Your task to perform on an android device: Go to wifi settings Image 0: 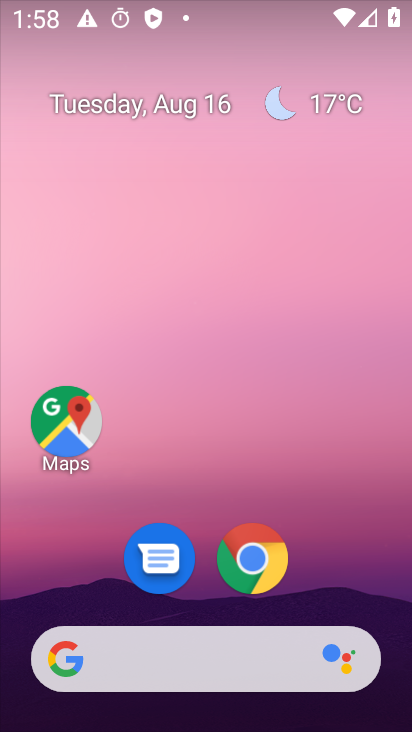
Step 0: drag from (229, 457) to (266, 1)
Your task to perform on an android device: Go to wifi settings Image 1: 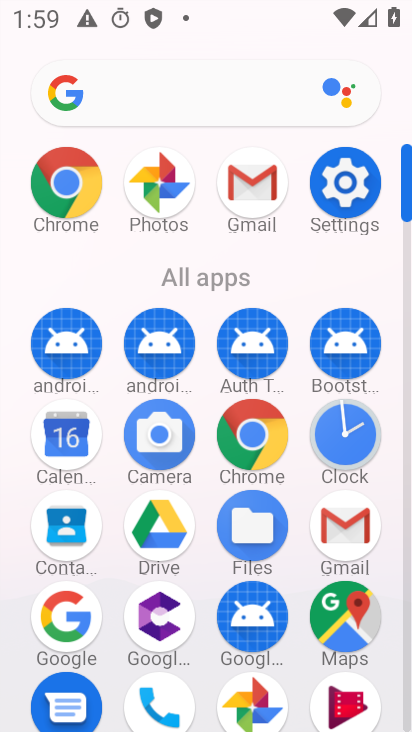
Step 1: click (345, 179)
Your task to perform on an android device: Go to wifi settings Image 2: 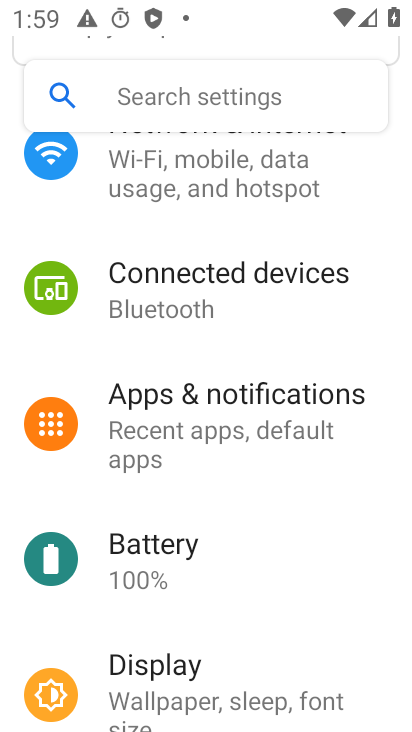
Step 2: drag from (136, 183) to (163, 476)
Your task to perform on an android device: Go to wifi settings Image 3: 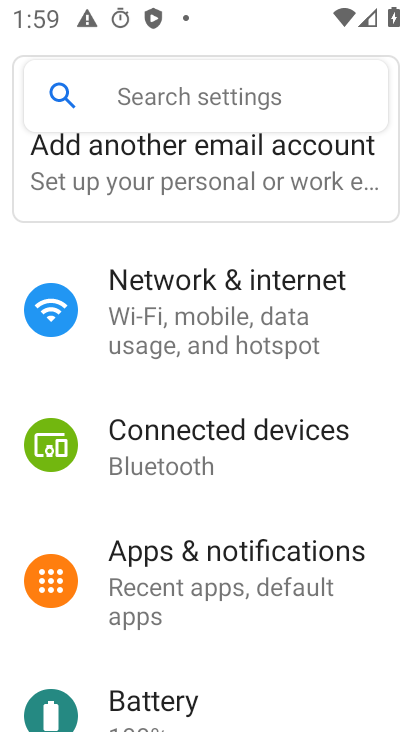
Step 3: click (201, 327)
Your task to perform on an android device: Go to wifi settings Image 4: 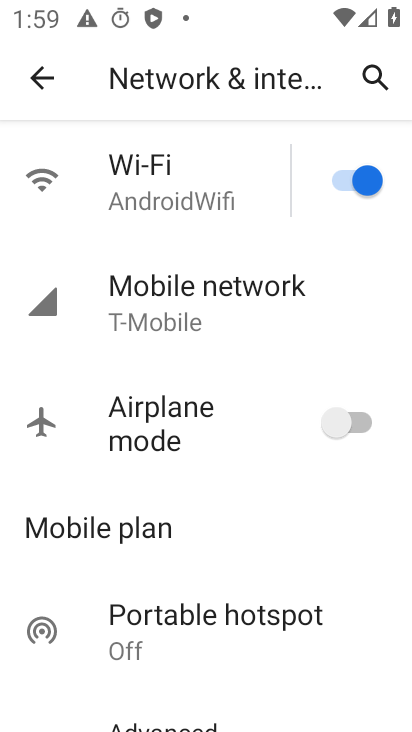
Step 4: click (145, 177)
Your task to perform on an android device: Go to wifi settings Image 5: 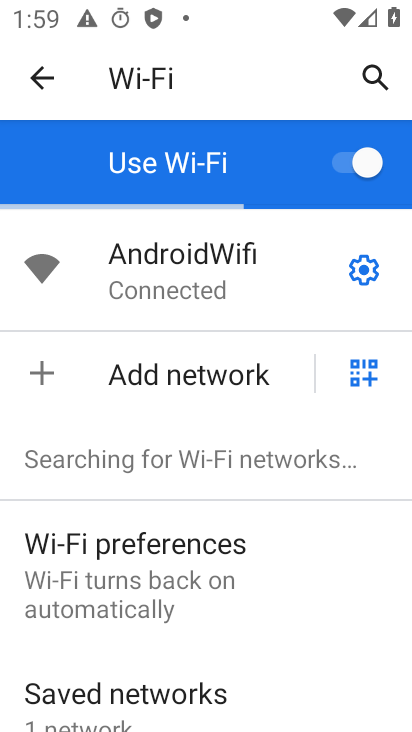
Step 5: task complete